Your task to perform on an android device: Open location settings Image 0: 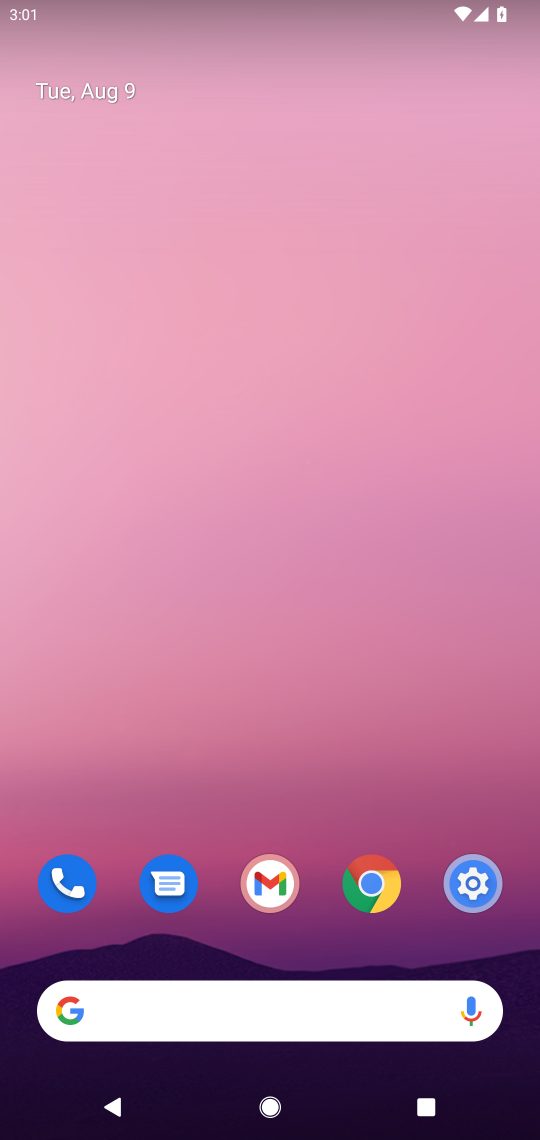
Step 0: click (477, 884)
Your task to perform on an android device: Open location settings Image 1: 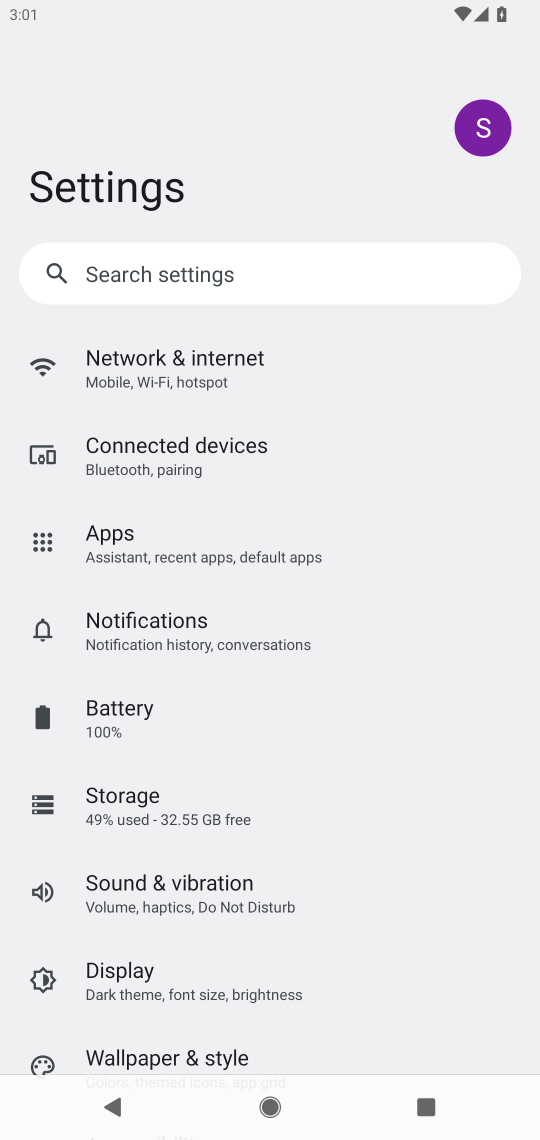
Step 1: drag from (393, 972) to (428, 424)
Your task to perform on an android device: Open location settings Image 2: 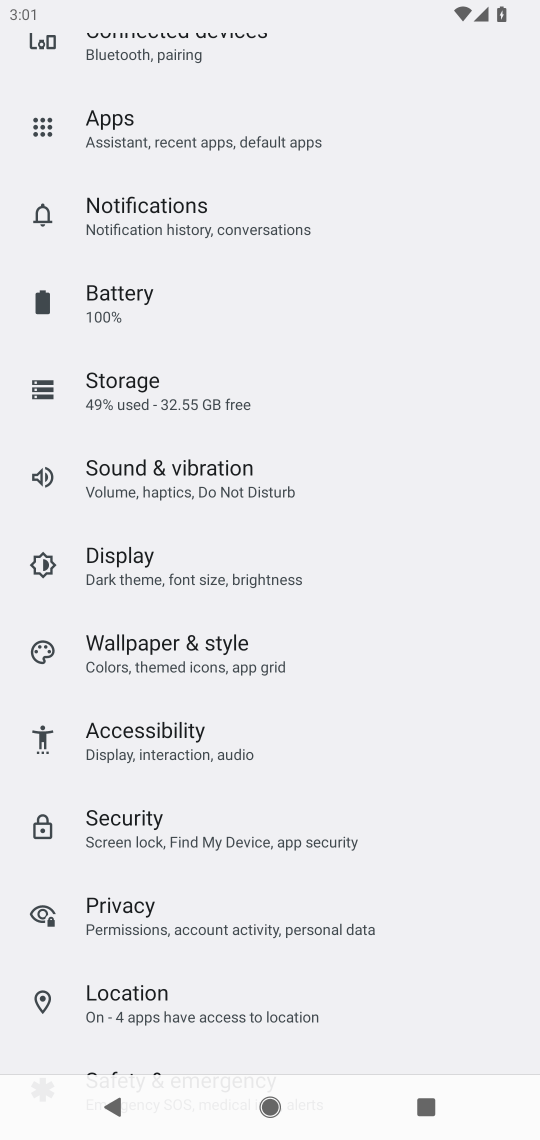
Step 2: drag from (421, 986) to (406, 416)
Your task to perform on an android device: Open location settings Image 3: 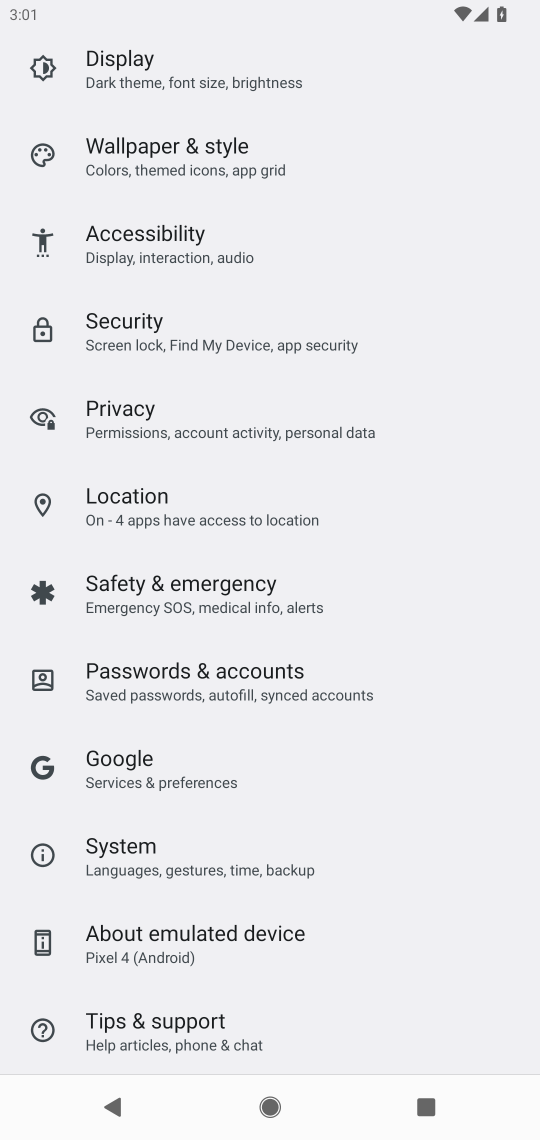
Step 3: click (135, 504)
Your task to perform on an android device: Open location settings Image 4: 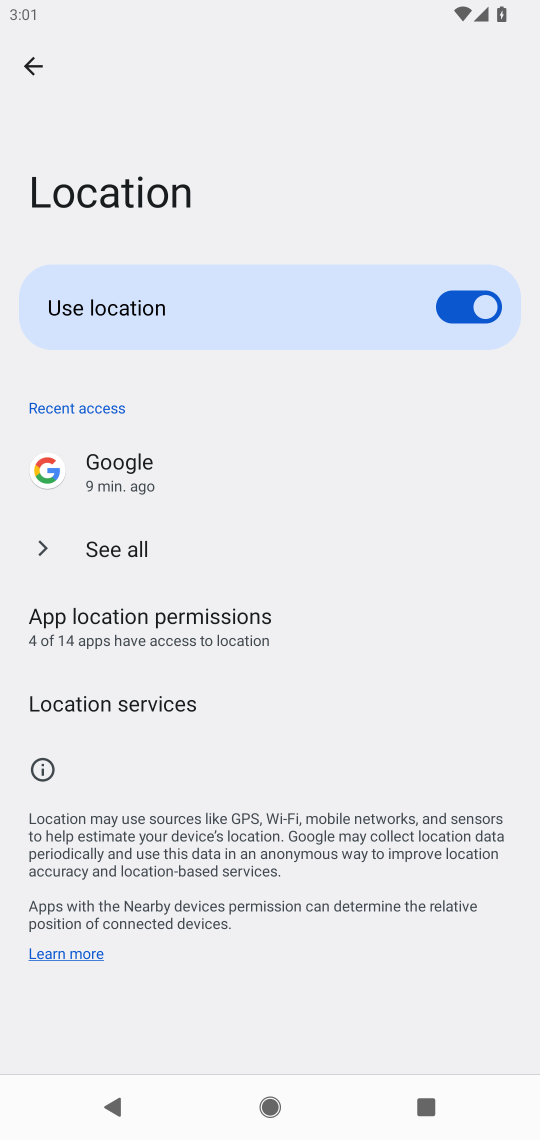
Step 4: task complete